Your task to perform on an android device: Open Android settings Image 0: 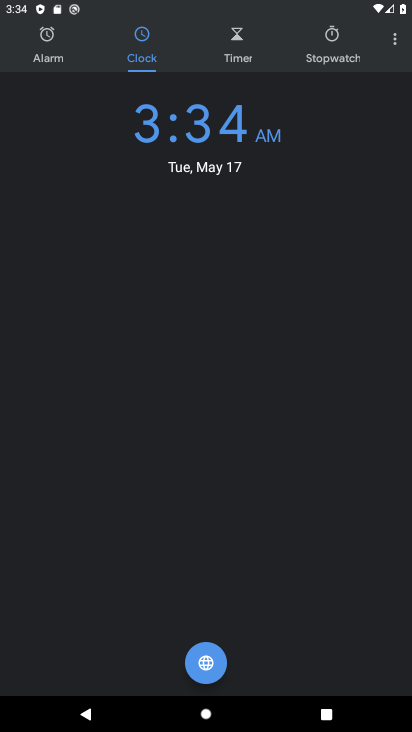
Step 0: press home button
Your task to perform on an android device: Open Android settings Image 1: 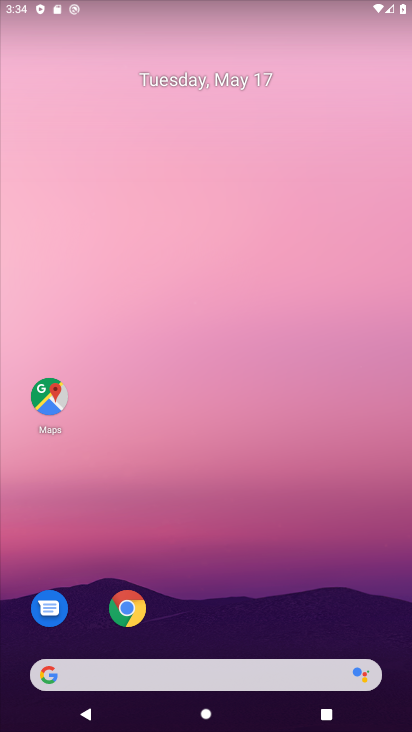
Step 1: drag from (197, 664) to (174, 351)
Your task to perform on an android device: Open Android settings Image 2: 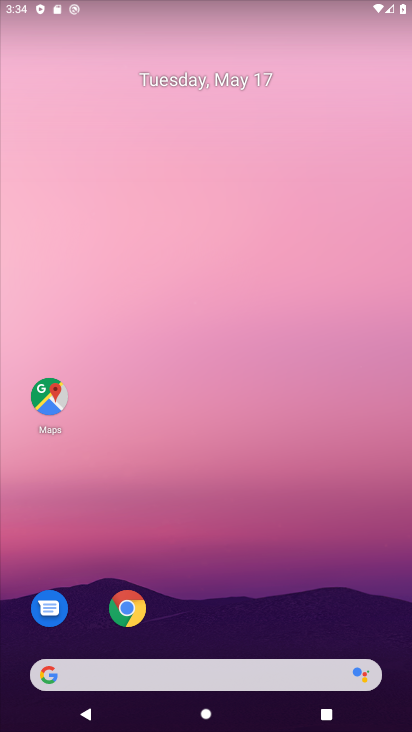
Step 2: drag from (209, 654) to (188, 179)
Your task to perform on an android device: Open Android settings Image 3: 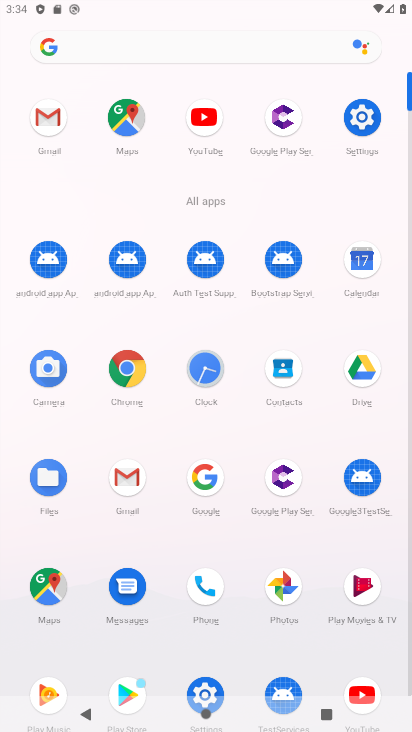
Step 3: click (362, 130)
Your task to perform on an android device: Open Android settings Image 4: 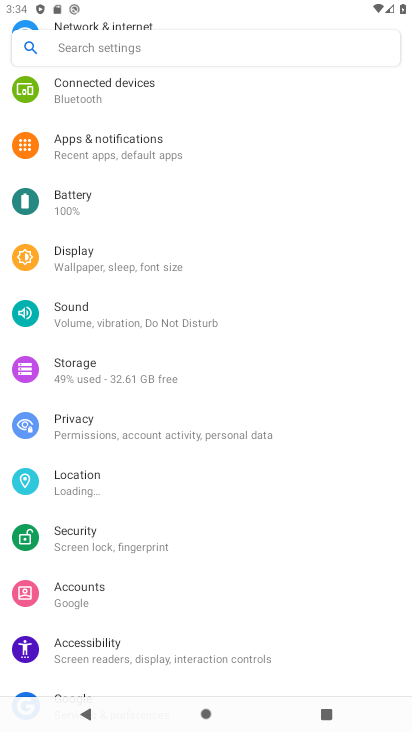
Step 4: task complete